Your task to perform on an android device: turn on bluetooth scan Image 0: 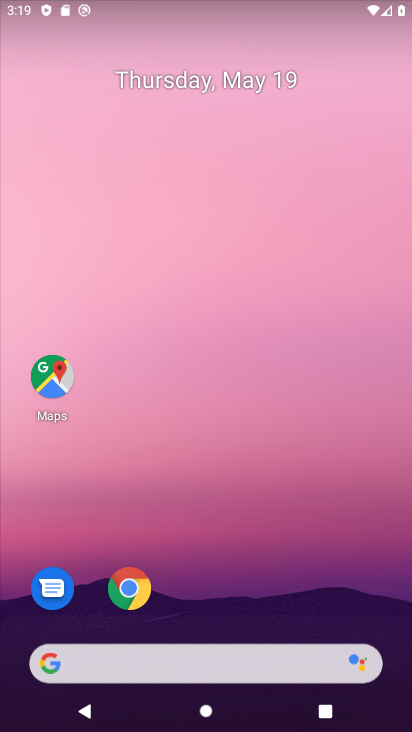
Step 0: drag from (248, 616) to (324, 2)
Your task to perform on an android device: turn on bluetooth scan Image 1: 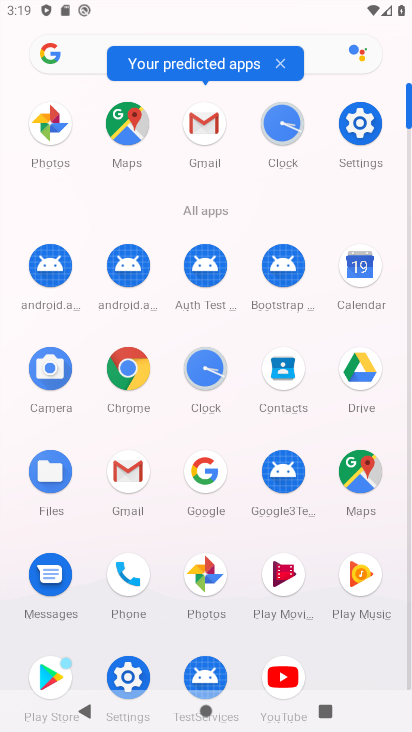
Step 1: click (354, 118)
Your task to perform on an android device: turn on bluetooth scan Image 2: 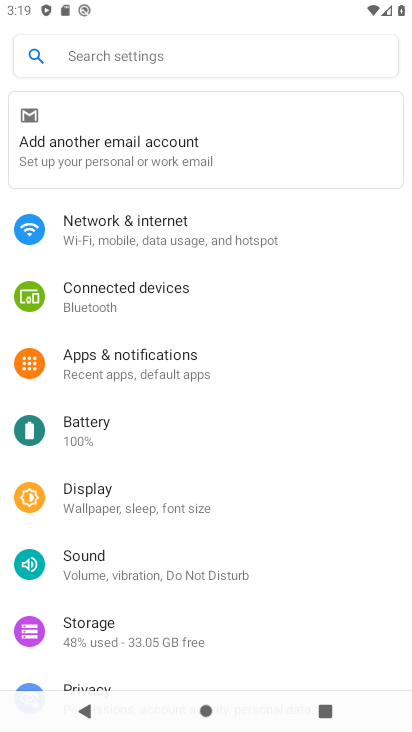
Step 2: drag from (109, 643) to (212, 150)
Your task to perform on an android device: turn on bluetooth scan Image 3: 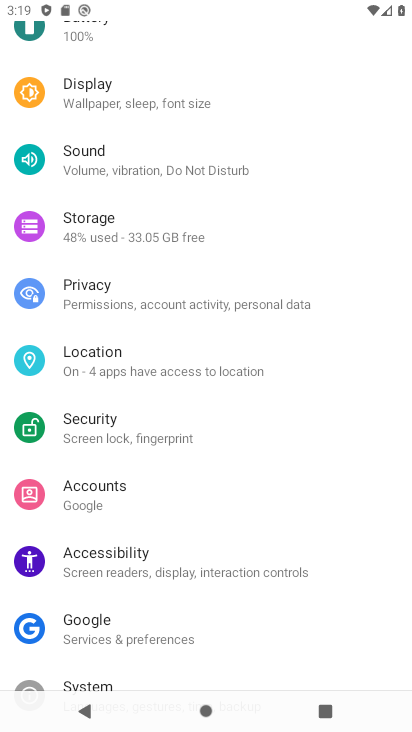
Step 3: click (129, 366)
Your task to perform on an android device: turn on bluetooth scan Image 4: 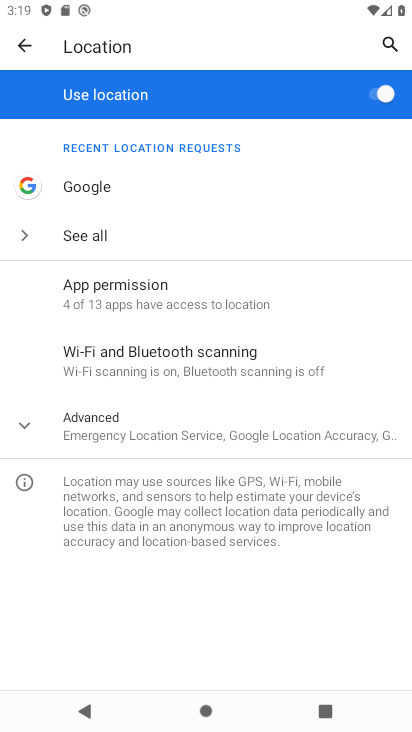
Step 4: click (129, 366)
Your task to perform on an android device: turn on bluetooth scan Image 5: 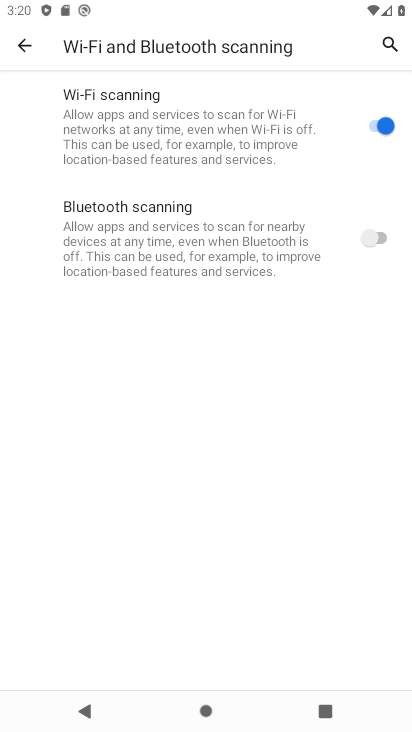
Step 5: click (379, 238)
Your task to perform on an android device: turn on bluetooth scan Image 6: 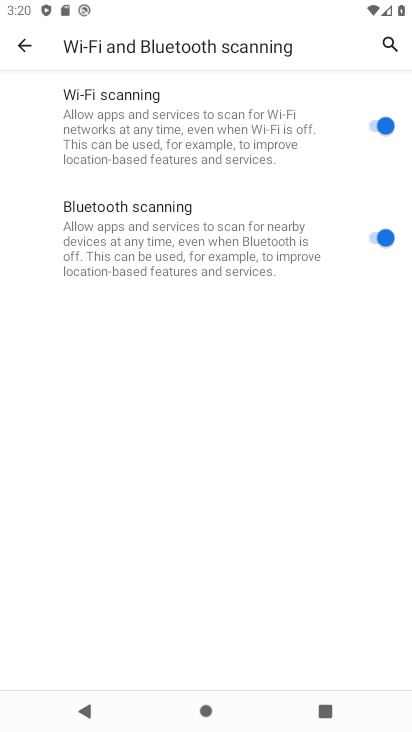
Step 6: task complete